Your task to perform on an android device: Turn off the flashlight Image 0: 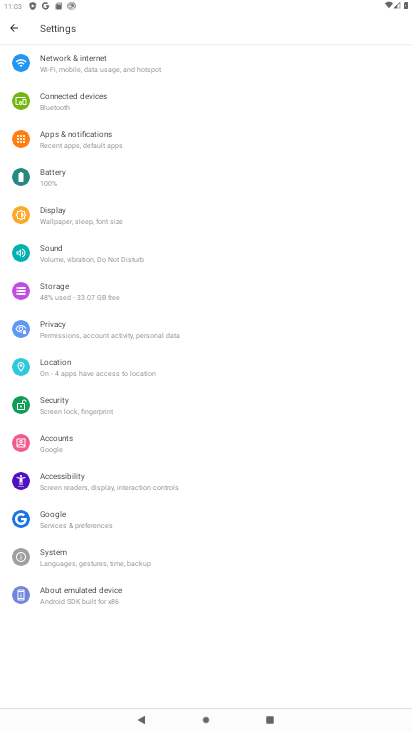
Step 0: press home button
Your task to perform on an android device: Turn off the flashlight Image 1: 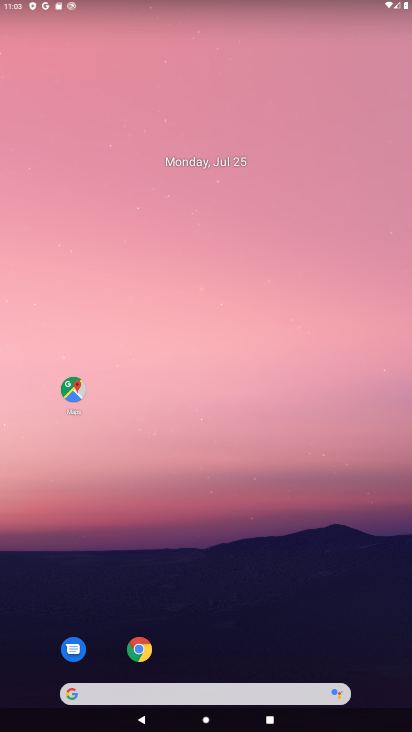
Step 1: drag from (293, 298) to (320, 527)
Your task to perform on an android device: Turn off the flashlight Image 2: 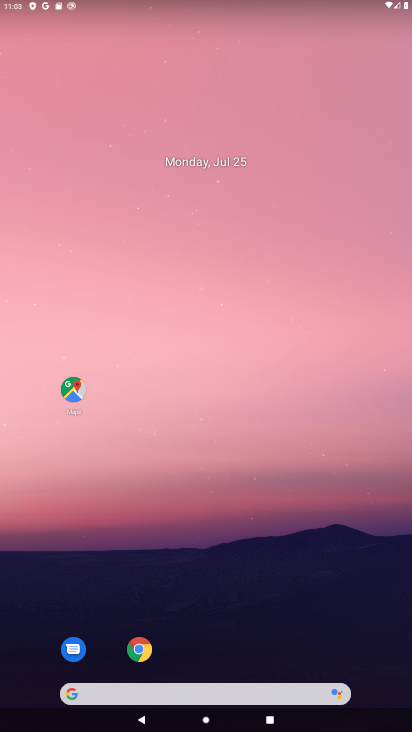
Step 2: drag from (218, 4) to (208, 554)
Your task to perform on an android device: Turn off the flashlight Image 3: 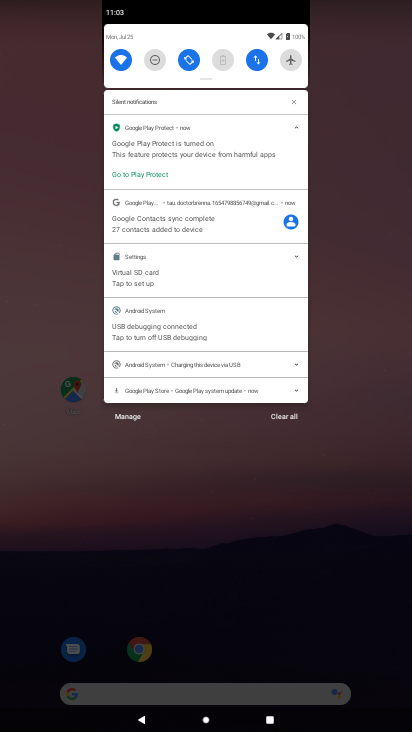
Step 3: drag from (216, 56) to (229, 417)
Your task to perform on an android device: Turn off the flashlight Image 4: 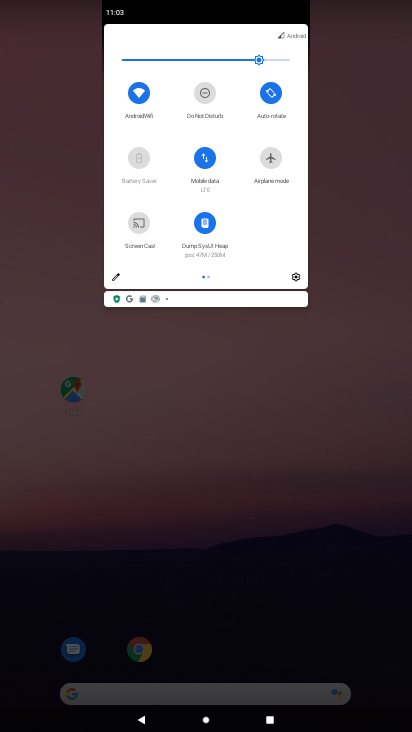
Step 4: click (113, 281)
Your task to perform on an android device: Turn off the flashlight Image 5: 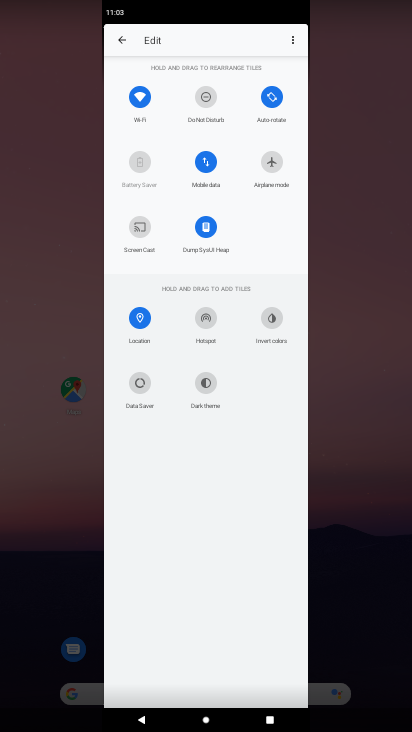
Step 5: task complete